Your task to perform on an android device: open a new tab in the chrome app Image 0: 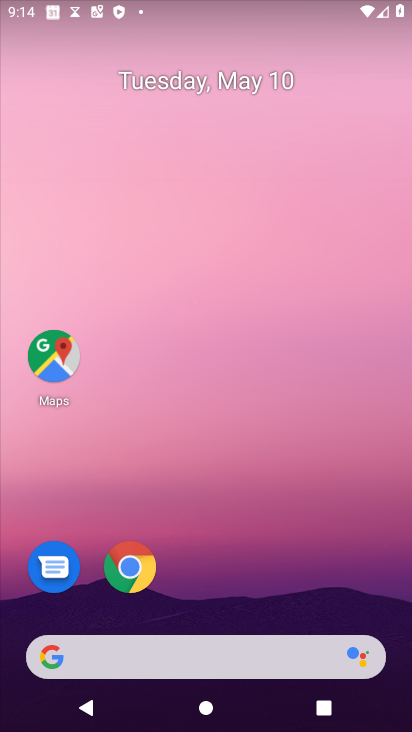
Step 0: click (128, 562)
Your task to perform on an android device: open a new tab in the chrome app Image 1: 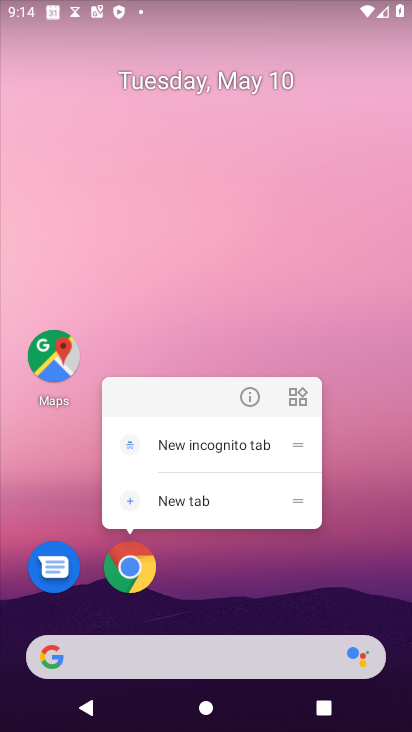
Step 1: click (244, 401)
Your task to perform on an android device: open a new tab in the chrome app Image 2: 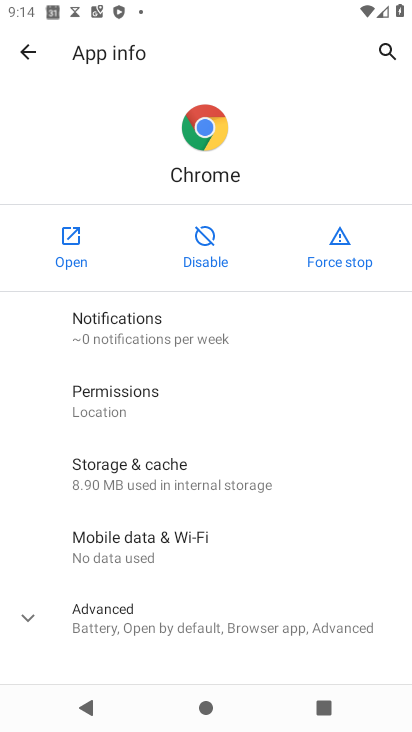
Step 2: click (67, 235)
Your task to perform on an android device: open a new tab in the chrome app Image 3: 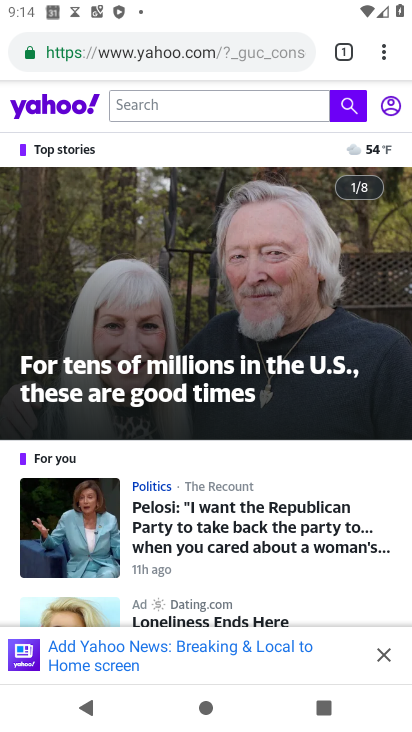
Step 3: click (335, 56)
Your task to perform on an android device: open a new tab in the chrome app Image 4: 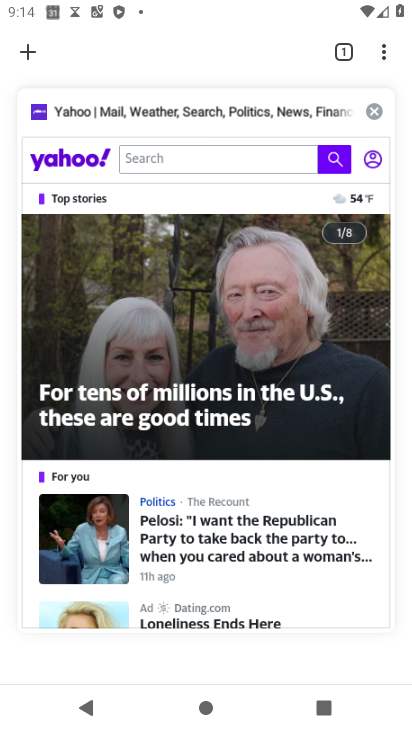
Step 4: click (22, 49)
Your task to perform on an android device: open a new tab in the chrome app Image 5: 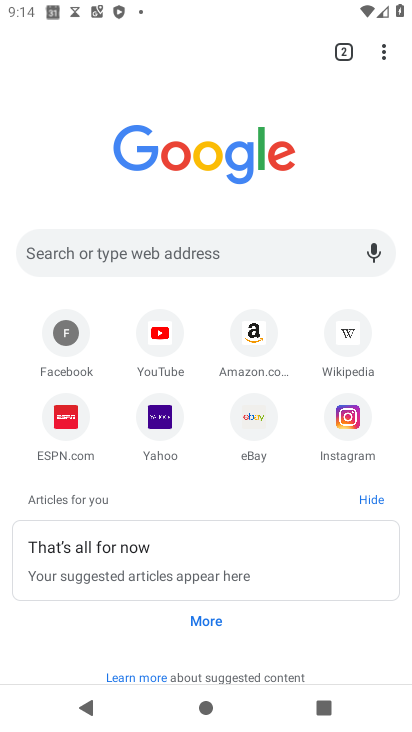
Step 5: task complete